Your task to perform on an android device: open a new tab in the chrome app Image 0: 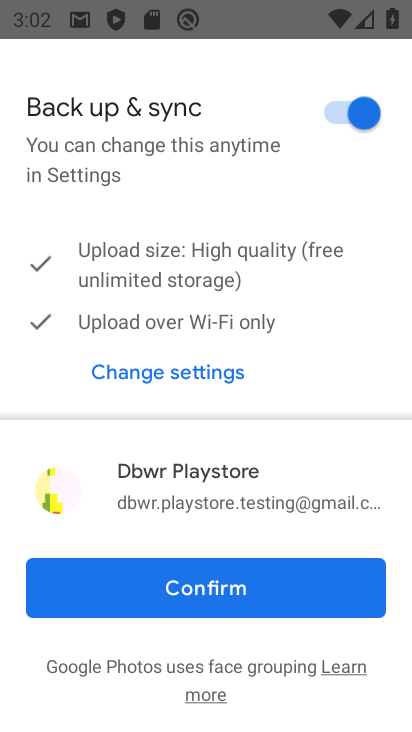
Step 0: press home button
Your task to perform on an android device: open a new tab in the chrome app Image 1: 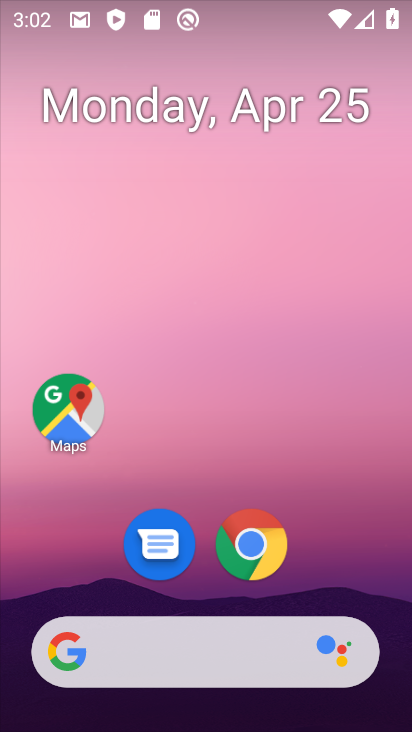
Step 1: click (249, 543)
Your task to perform on an android device: open a new tab in the chrome app Image 2: 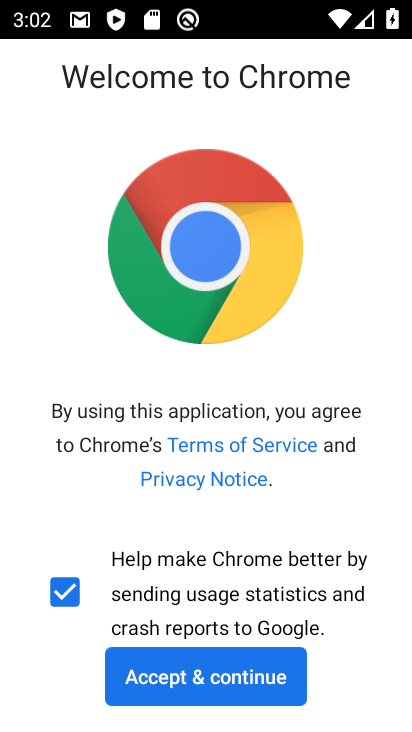
Step 2: click (188, 673)
Your task to perform on an android device: open a new tab in the chrome app Image 3: 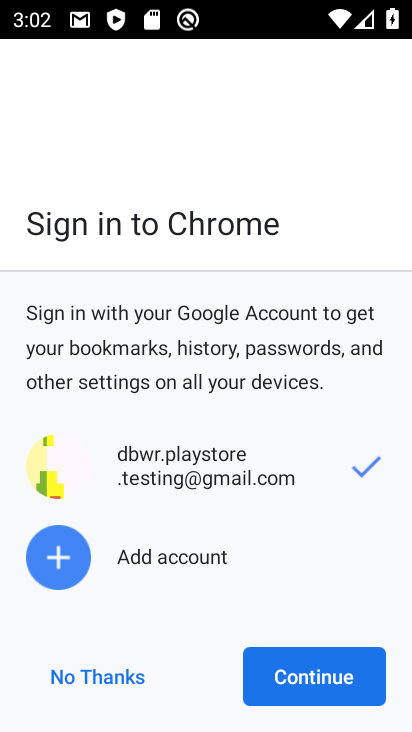
Step 3: click (284, 683)
Your task to perform on an android device: open a new tab in the chrome app Image 4: 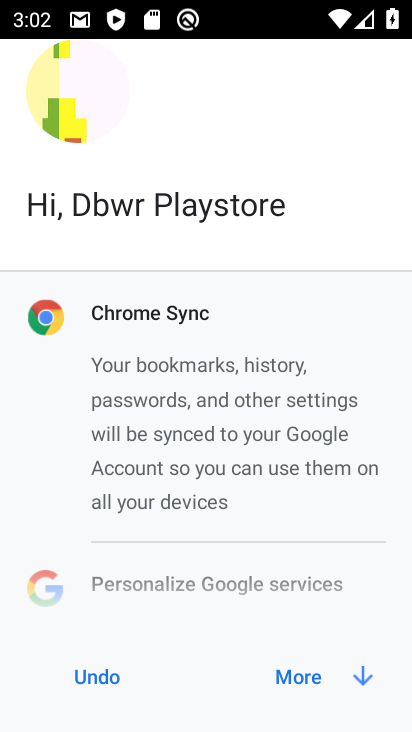
Step 4: click (292, 679)
Your task to perform on an android device: open a new tab in the chrome app Image 5: 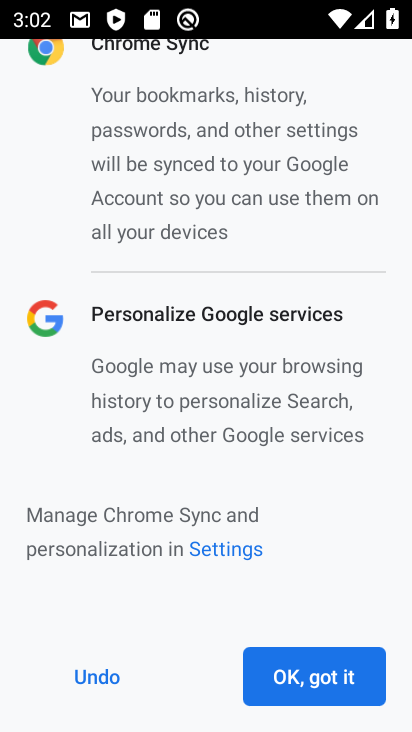
Step 5: click (305, 673)
Your task to perform on an android device: open a new tab in the chrome app Image 6: 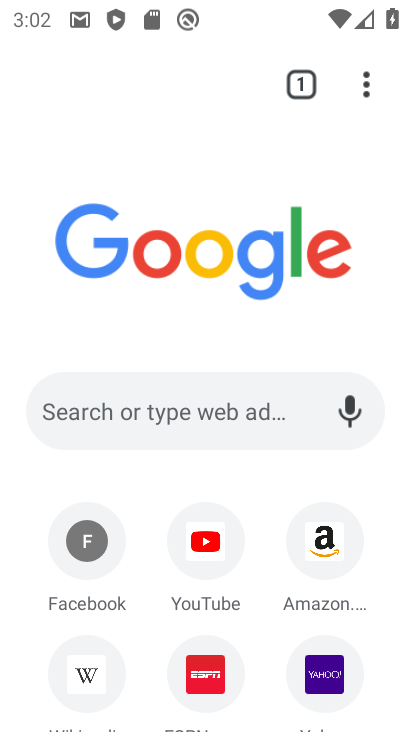
Step 6: click (369, 89)
Your task to perform on an android device: open a new tab in the chrome app Image 7: 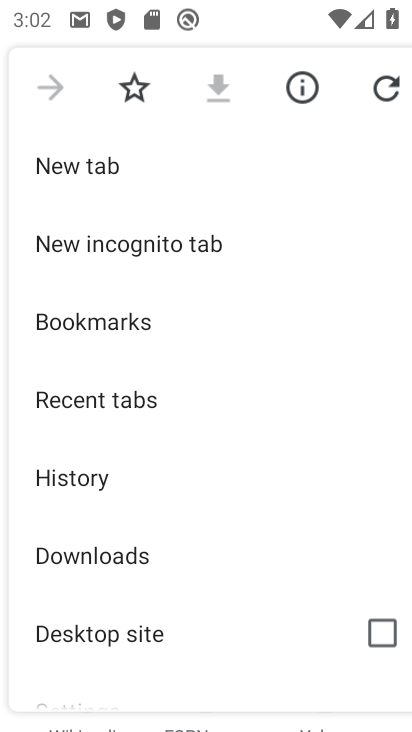
Step 7: click (193, 155)
Your task to perform on an android device: open a new tab in the chrome app Image 8: 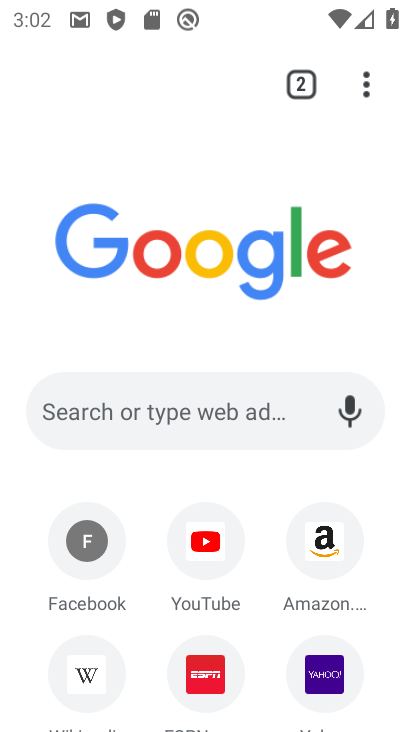
Step 8: task complete